Your task to perform on an android device: Open accessibility settings Image 0: 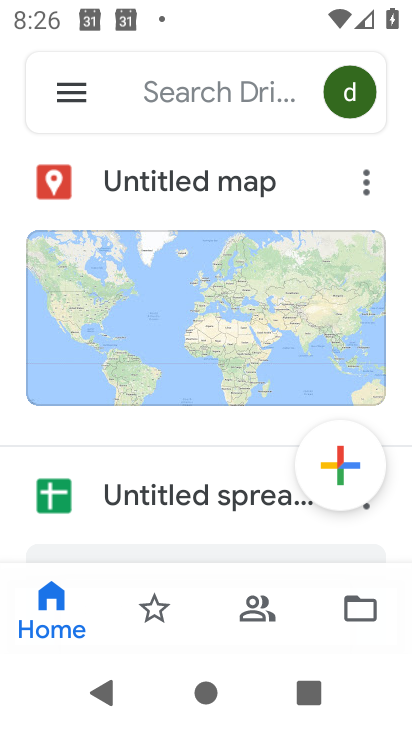
Step 0: press home button
Your task to perform on an android device: Open accessibility settings Image 1: 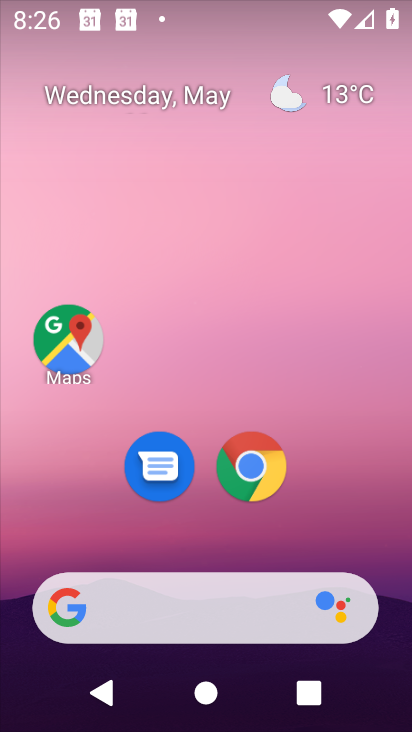
Step 1: drag from (210, 540) to (209, 81)
Your task to perform on an android device: Open accessibility settings Image 2: 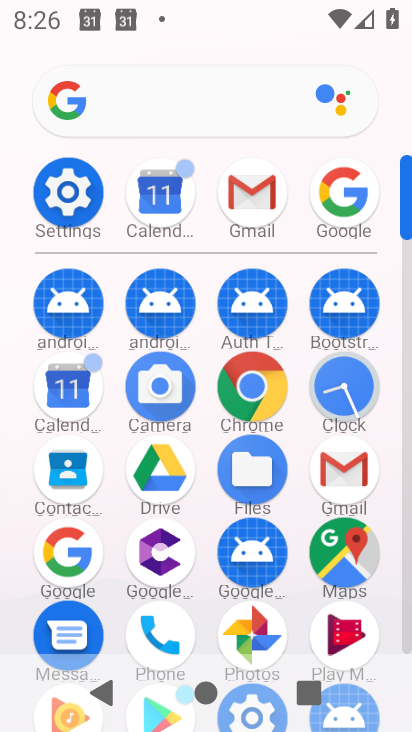
Step 2: click (70, 192)
Your task to perform on an android device: Open accessibility settings Image 3: 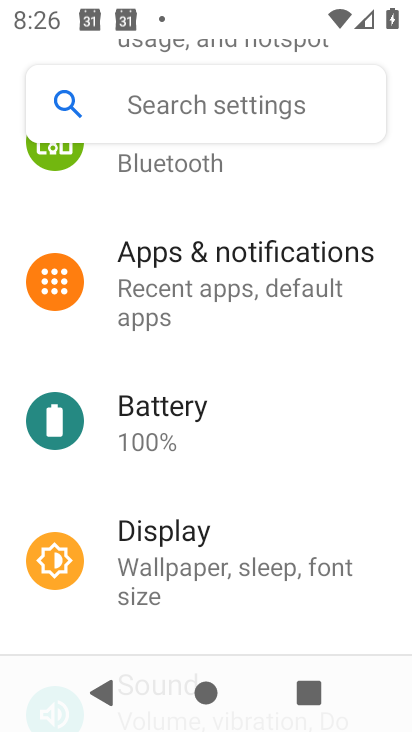
Step 3: drag from (193, 587) to (215, 341)
Your task to perform on an android device: Open accessibility settings Image 4: 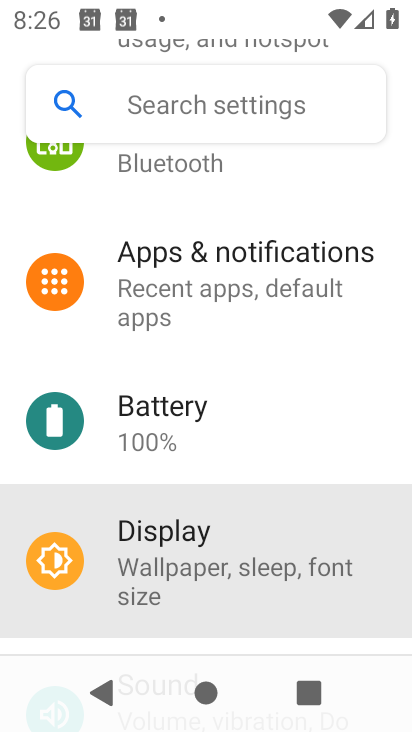
Step 4: drag from (225, 167) to (228, 125)
Your task to perform on an android device: Open accessibility settings Image 5: 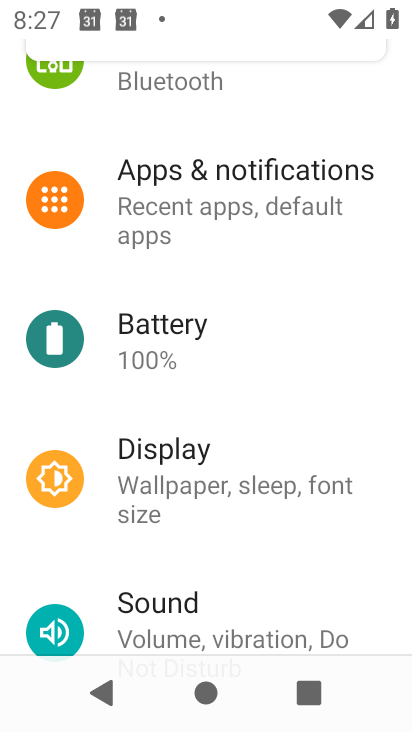
Step 5: drag from (237, 594) to (238, 201)
Your task to perform on an android device: Open accessibility settings Image 6: 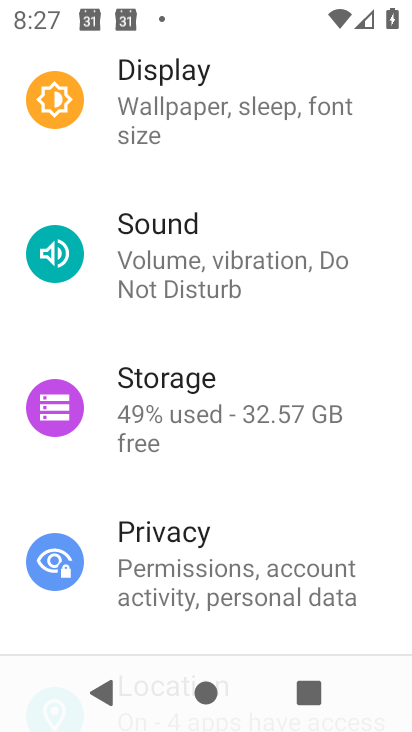
Step 6: drag from (217, 561) to (237, 97)
Your task to perform on an android device: Open accessibility settings Image 7: 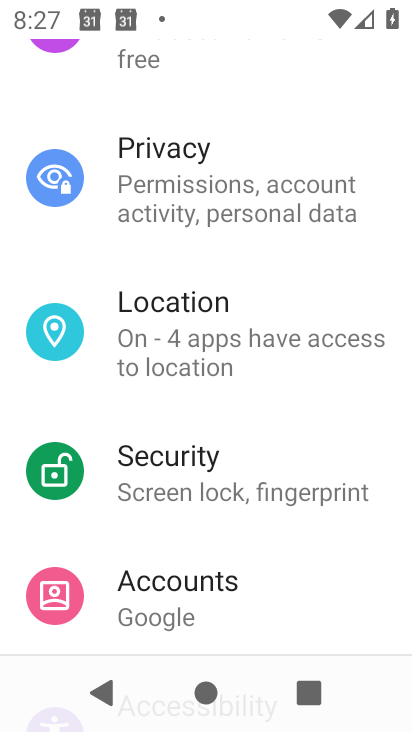
Step 7: drag from (192, 568) to (217, 143)
Your task to perform on an android device: Open accessibility settings Image 8: 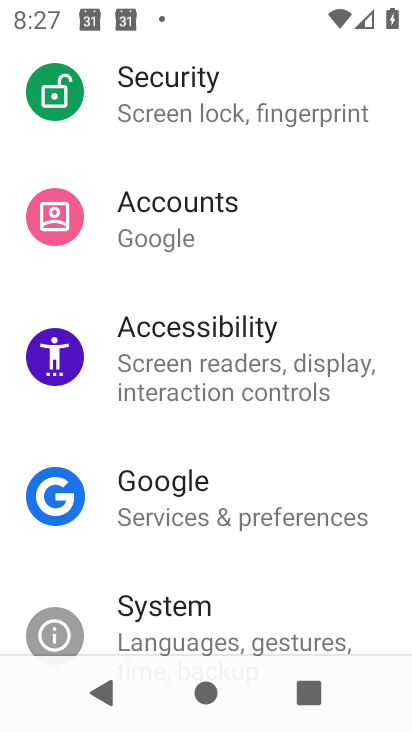
Step 8: click (202, 342)
Your task to perform on an android device: Open accessibility settings Image 9: 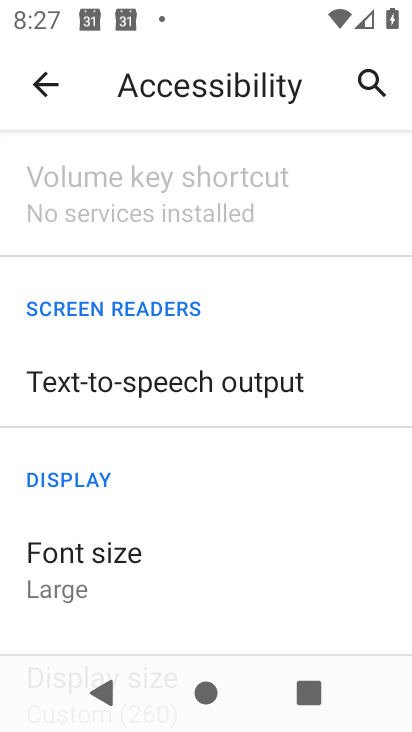
Step 9: task complete